Your task to perform on an android device: Open privacy settings Image 0: 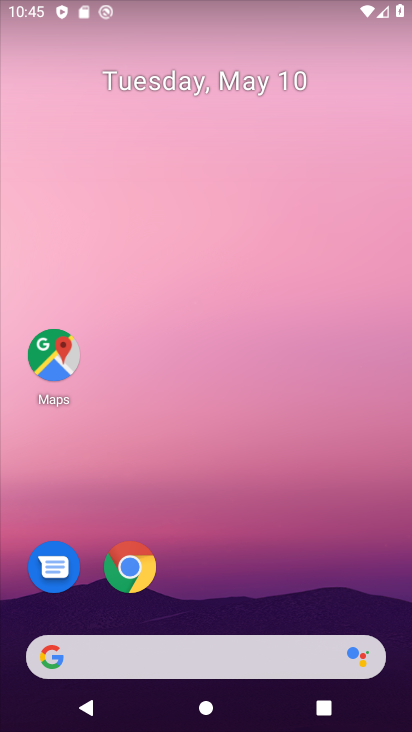
Step 0: drag from (234, 558) to (267, 211)
Your task to perform on an android device: Open privacy settings Image 1: 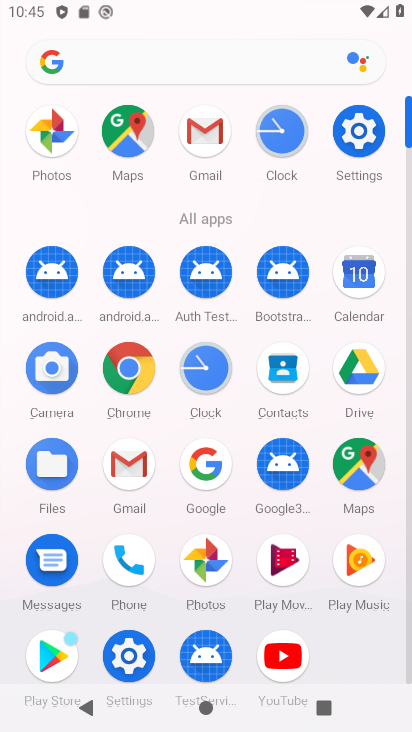
Step 1: click (370, 126)
Your task to perform on an android device: Open privacy settings Image 2: 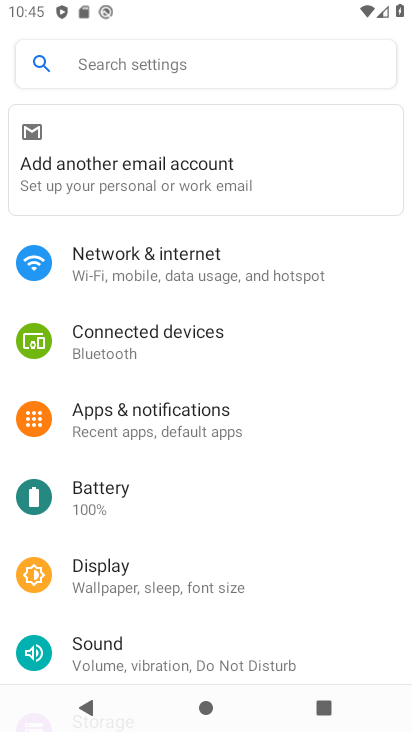
Step 2: drag from (202, 592) to (222, 181)
Your task to perform on an android device: Open privacy settings Image 3: 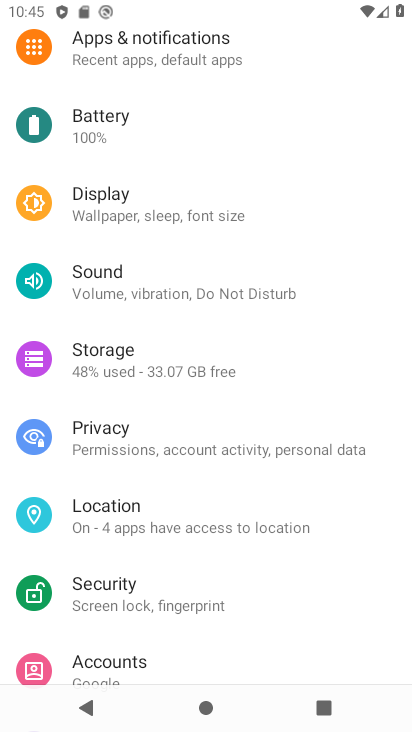
Step 3: drag from (189, 588) to (207, 237)
Your task to perform on an android device: Open privacy settings Image 4: 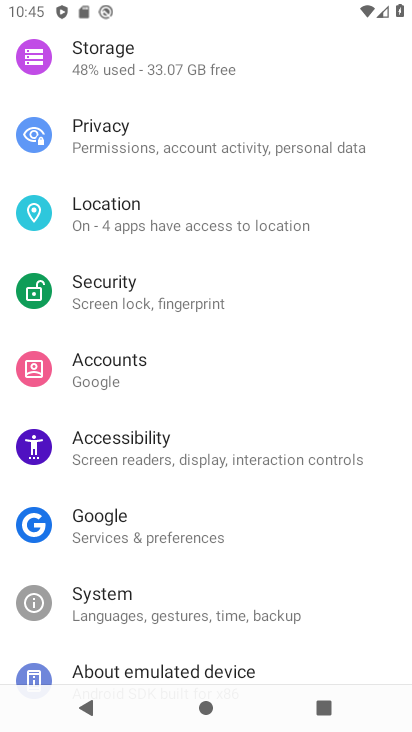
Step 4: drag from (202, 630) to (188, 426)
Your task to perform on an android device: Open privacy settings Image 5: 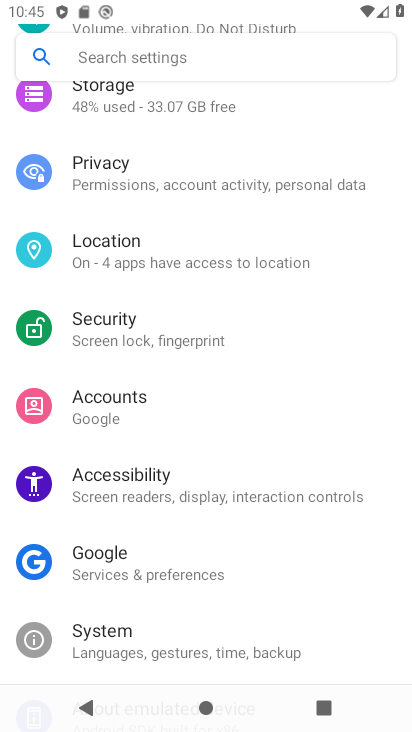
Step 5: click (198, 201)
Your task to perform on an android device: Open privacy settings Image 6: 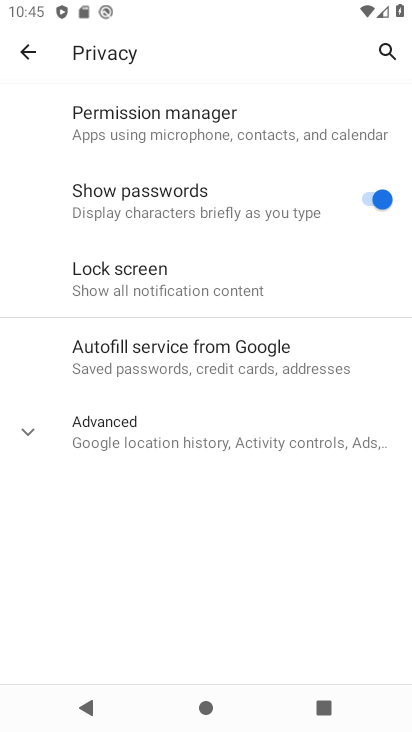
Step 6: task complete